Your task to perform on an android device: What's the weather today? Image 0: 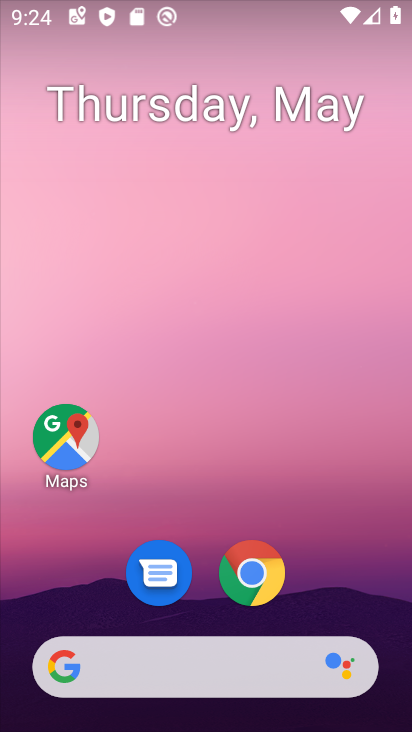
Step 0: click (243, 663)
Your task to perform on an android device: What's the weather today? Image 1: 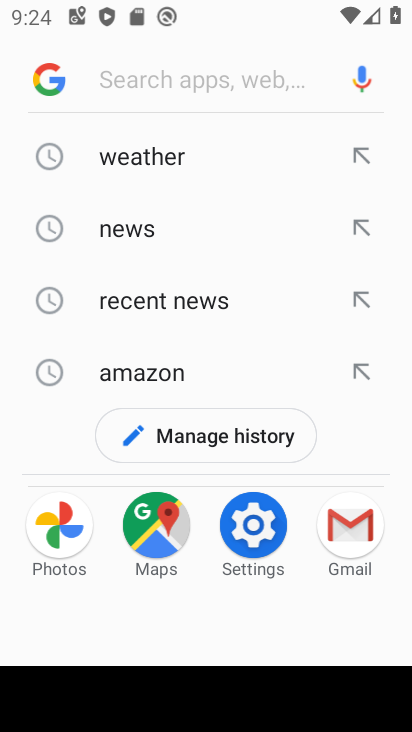
Step 1: type "whats the weather today?"
Your task to perform on an android device: What's the weather today? Image 2: 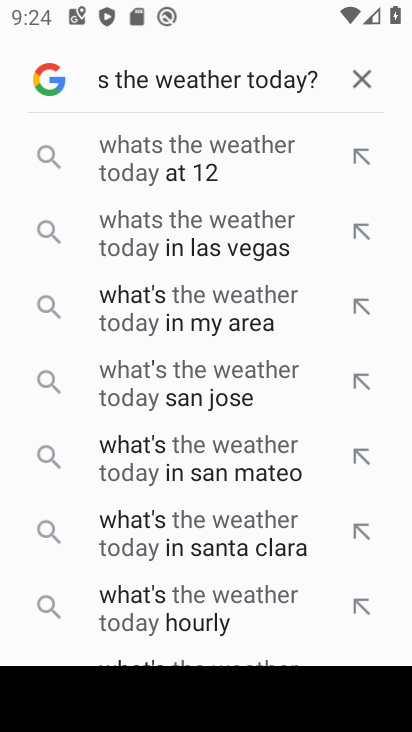
Step 2: click (367, 74)
Your task to perform on an android device: What's the weather today? Image 3: 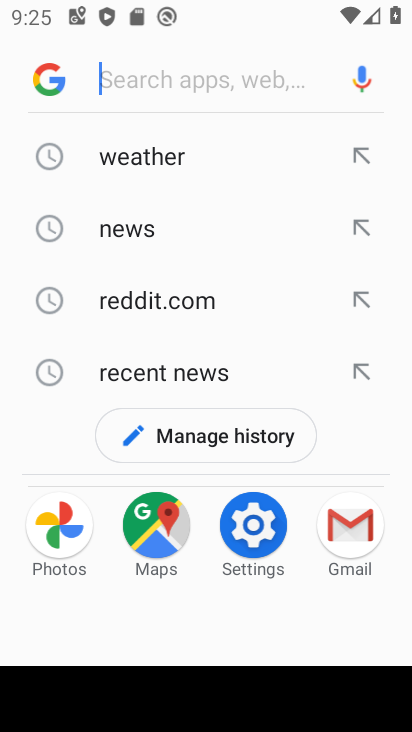
Step 3: type "What's the weather today"
Your task to perform on an android device: What's the weather today? Image 4: 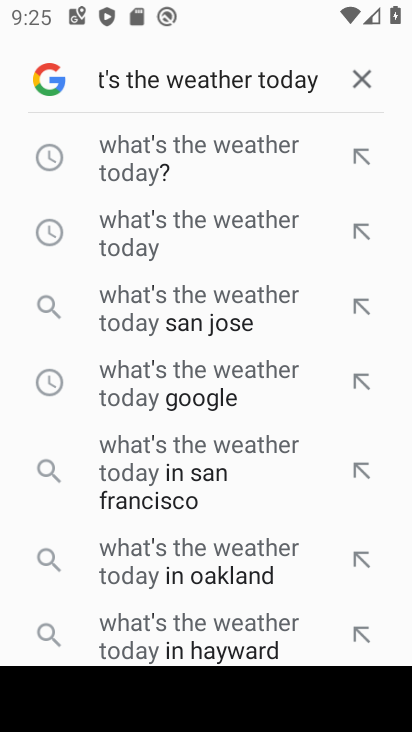
Step 4: click (166, 152)
Your task to perform on an android device: What's the weather today? Image 5: 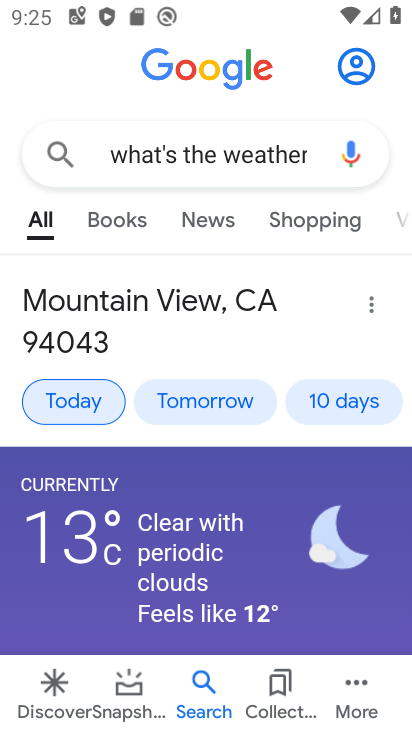
Step 5: task complete